Your task to perform on an android device: turn pop-ups off in chrome Image 0: 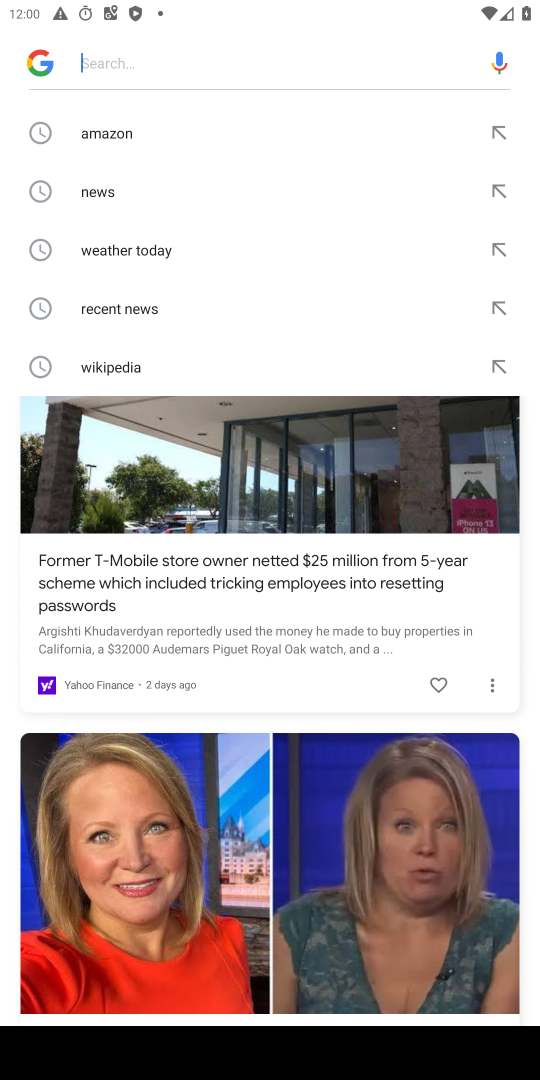
Step 0: press home button
Your task to perform on an android device: turn pop-ups off in chrome Image 1: 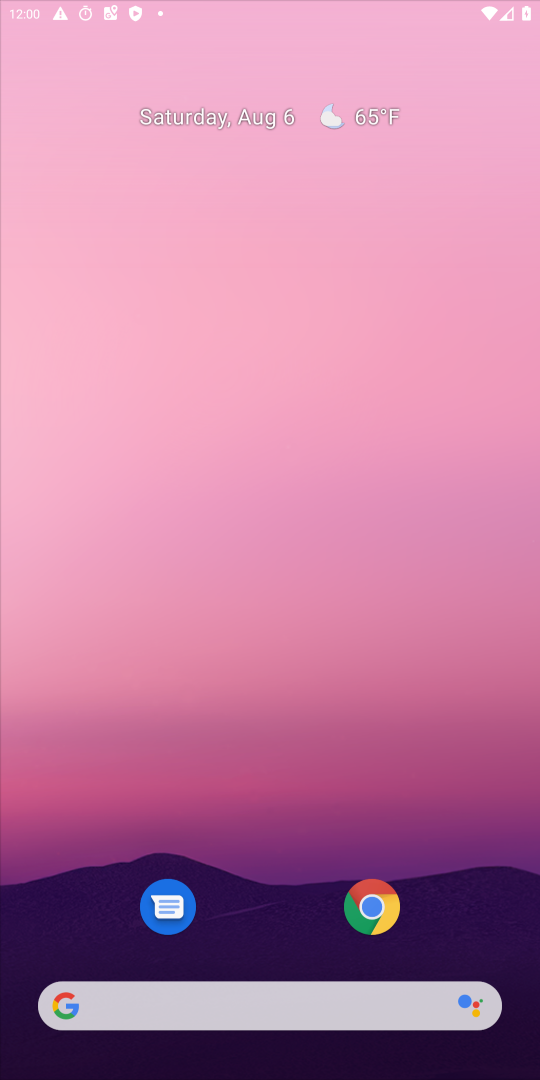
Step 1: press home button
Your task to perform on an android device: turn pop-ups off in chrome Image 2: 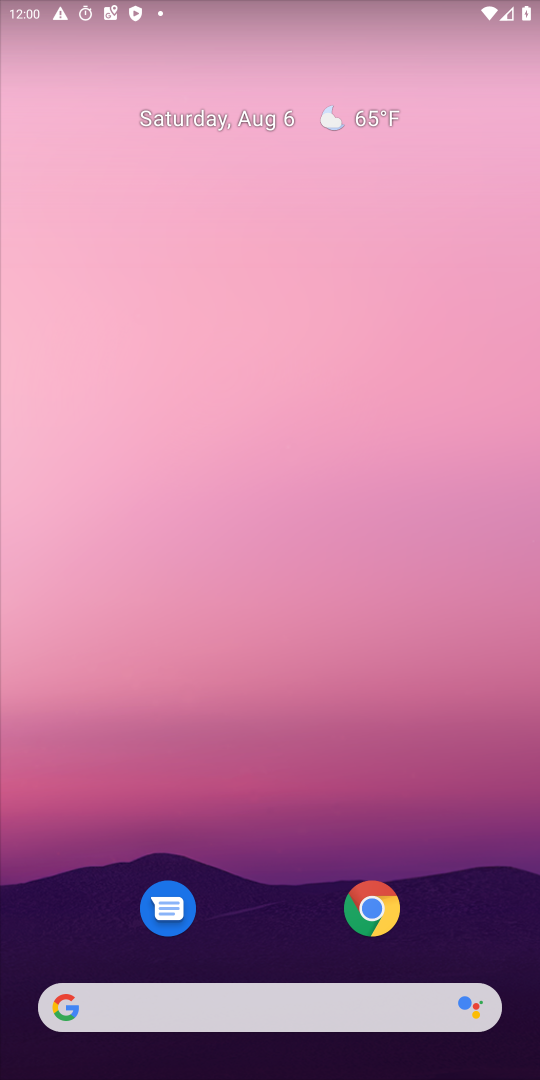
Step 2: click (366, 909)
Your task to perform on an android device: turn pop-ups off in chrome Image 3: 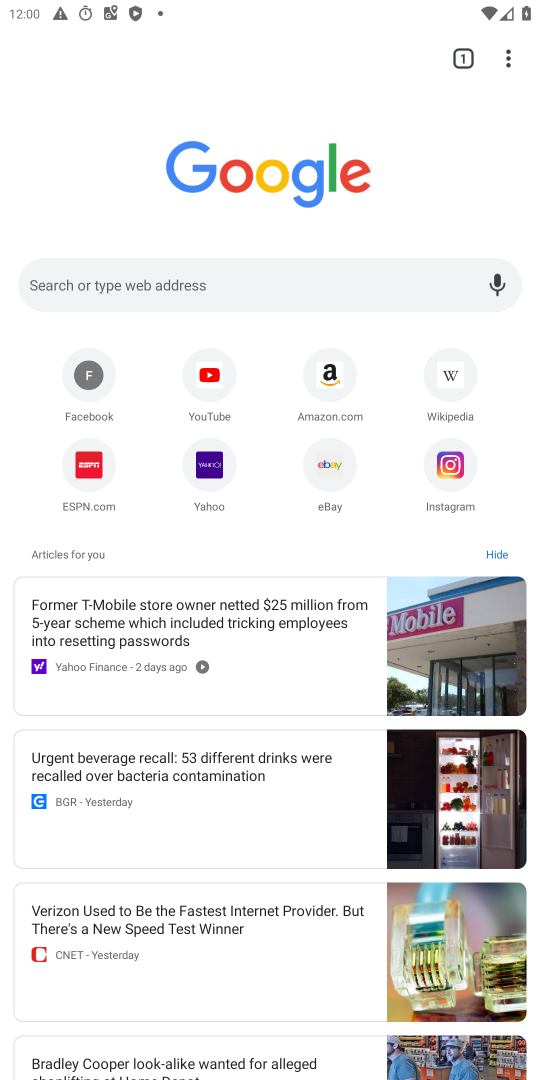
Step 3: click (515, 52)
Your task to perform on an android device: turn pop-ups off in chrome Image 4: 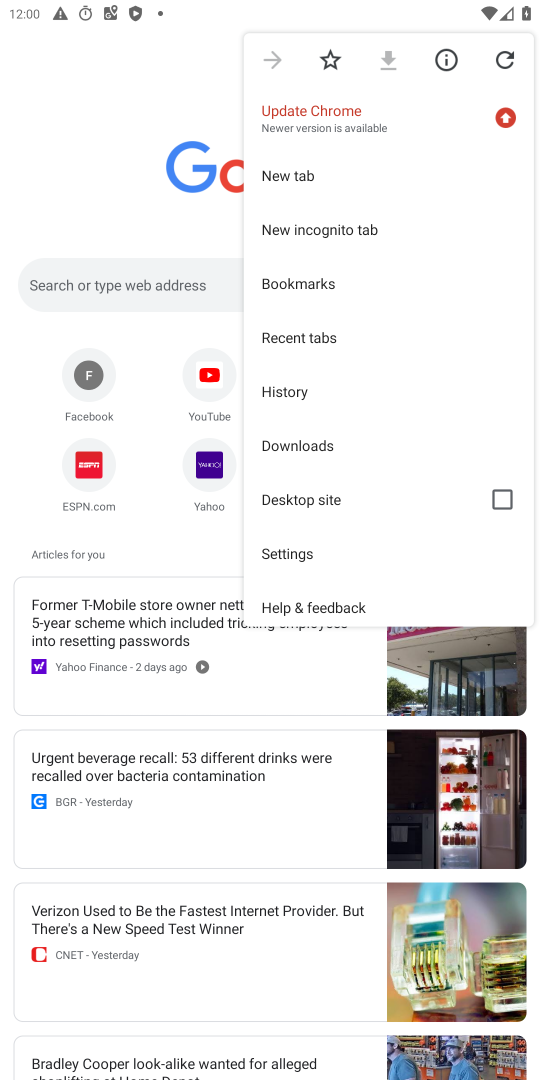
Step 4: click (288, 541)
Your task to perform on an android device: turn pop-ups off in chrome Image 5: 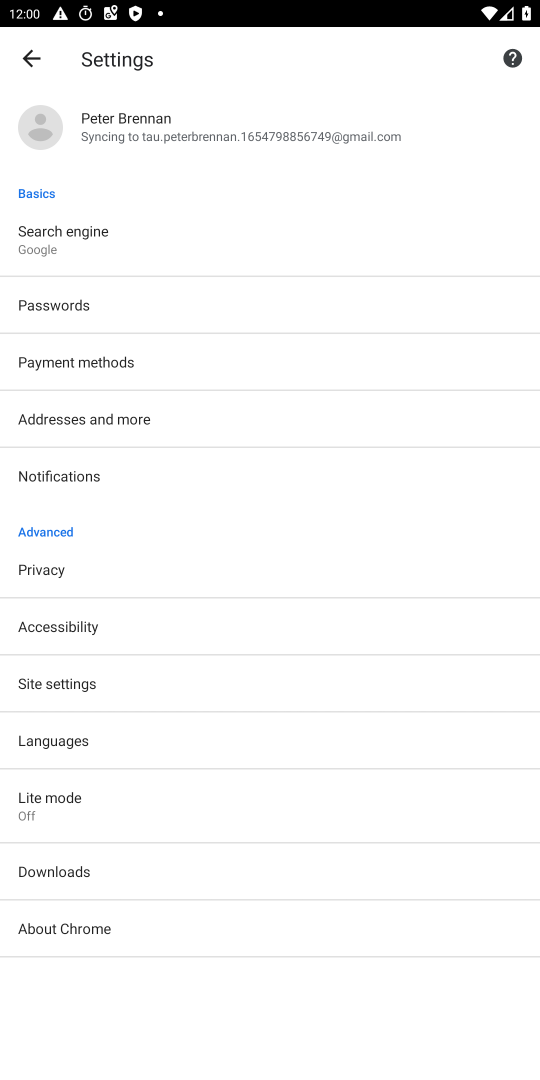
Step 5: click (73, 663)
Your task to perform on an android device: turn pop-ups off in chrome Image 6: 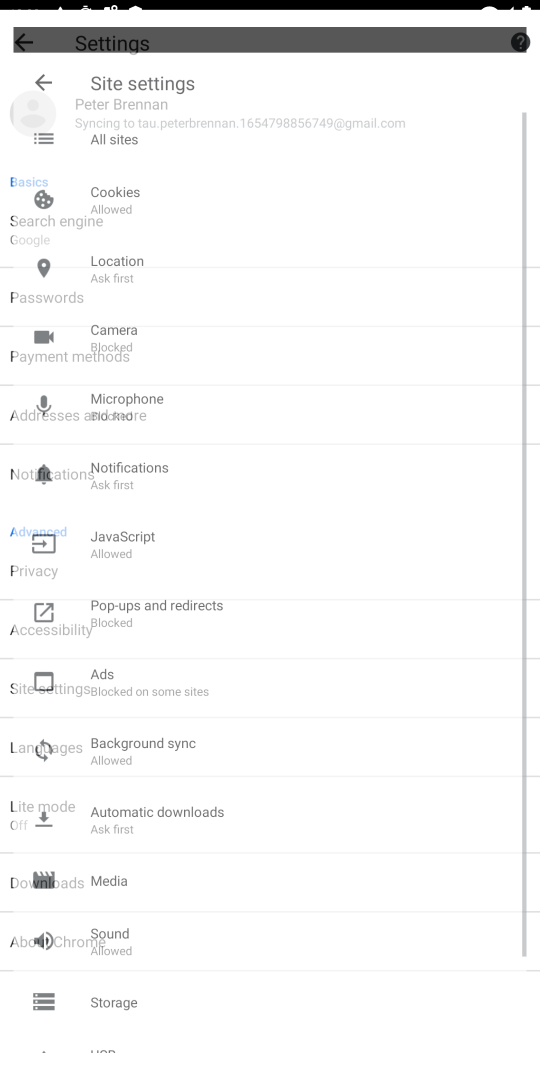
Step 6: click (74, 675)
Your task to perform on an android device: turn pop-ups off in chrome Image 7: 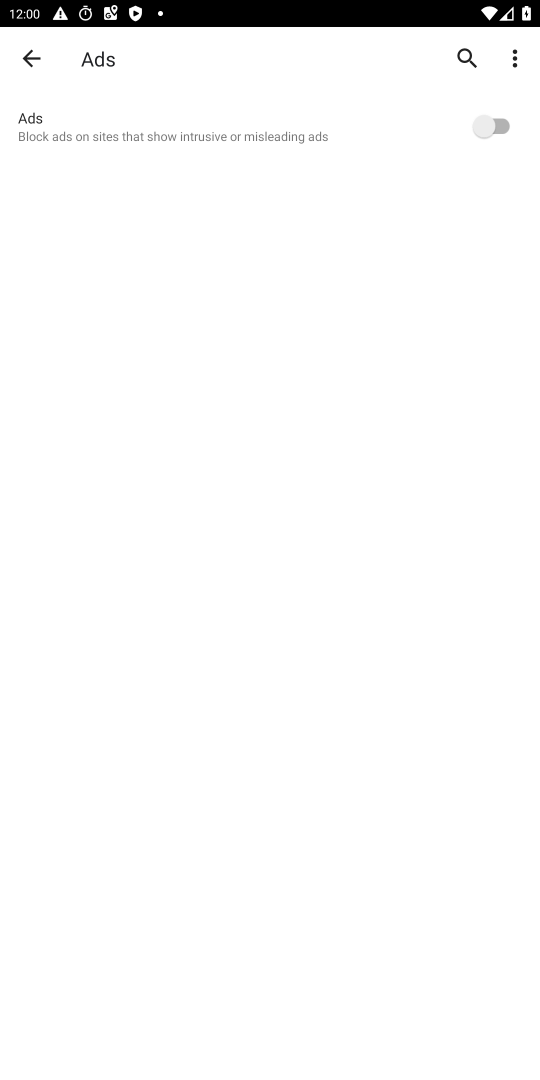
Step 7: click (35, 66)
Your task to perform on an android device: turn pop-ups off in chrome Image 8: 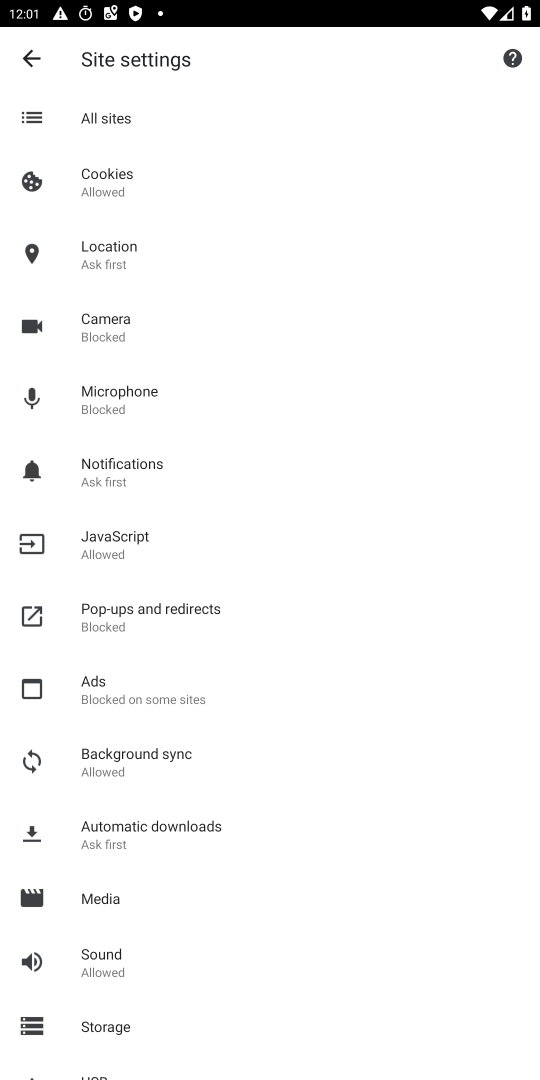
Step 8: click (110, 608)
Your task to perform on an android device: turn pop-ups off in chrome Image 9: 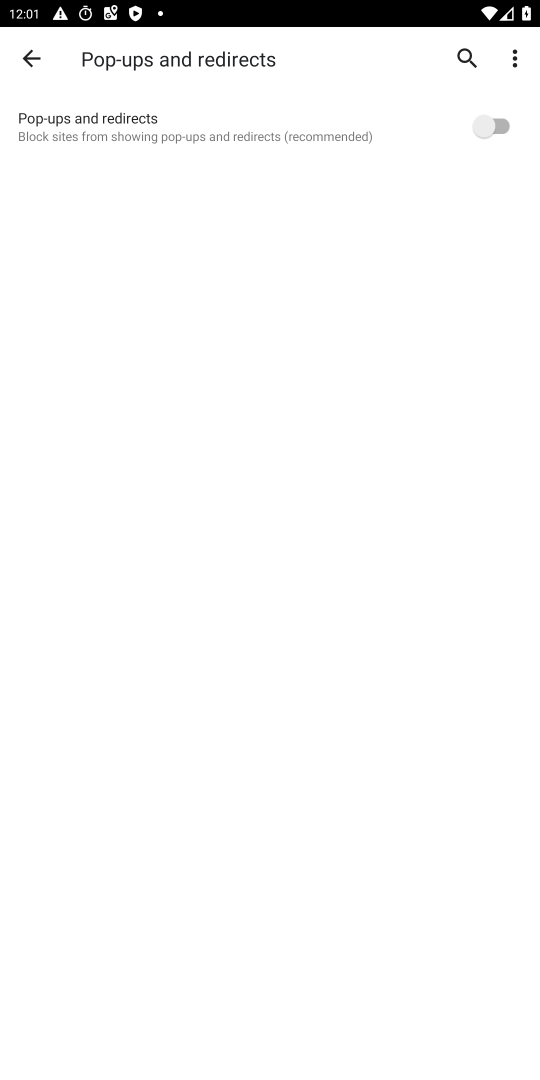
Step 9: click (485, 126)
Your task to perform on an android device: turn pop-ups off in chrome Image 10: 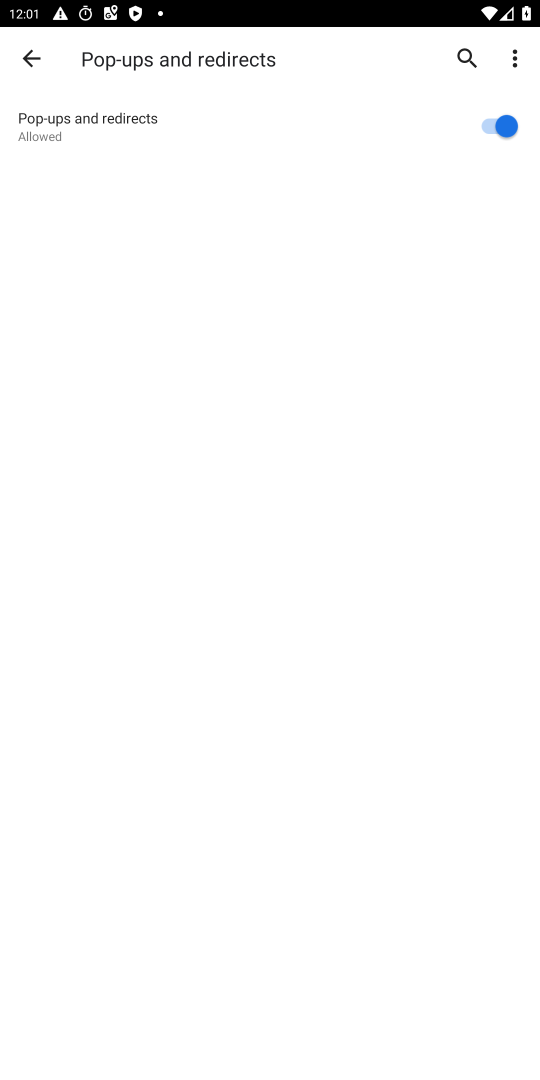
Step 10: task complete